Your task to perform on an android device: What is the recent news? Image 0: 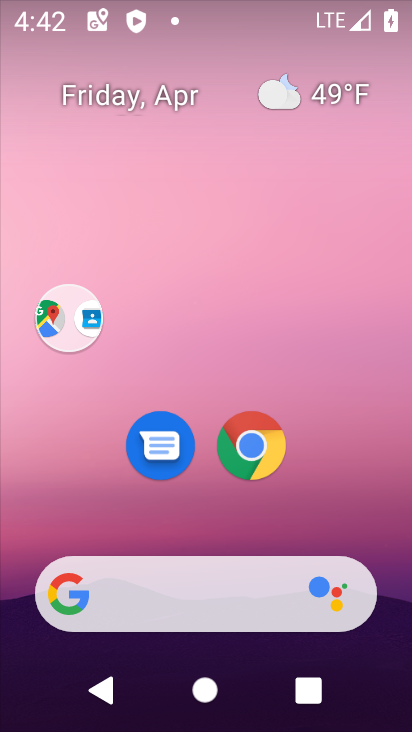
Step 0: drag from (341, 403) to (355, 67)
Your task to perform on an android device: What is the recent news? Image 1: 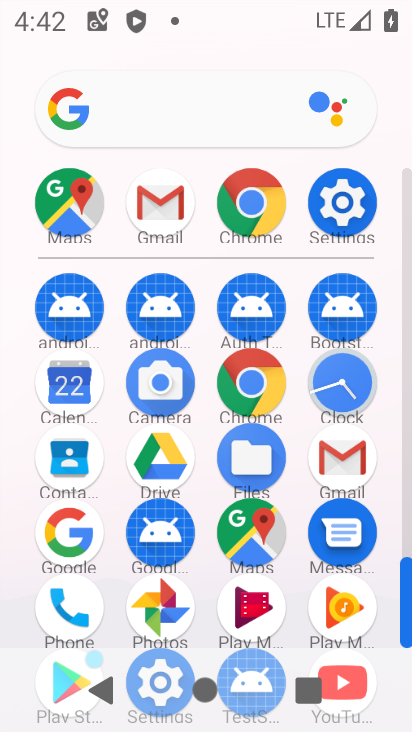
Step 1: click (251, 392)
Your task to perform on an android device: What is the recent news? Image 2: 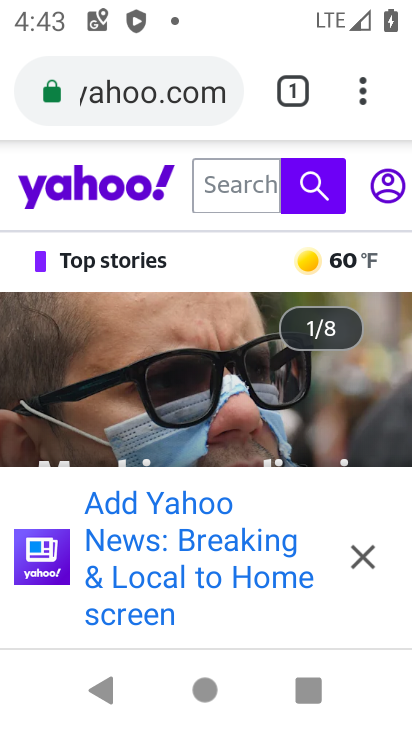
Step 2: click (173, 94)
Your task to perform on an android device: What is the recent news? Image 3: 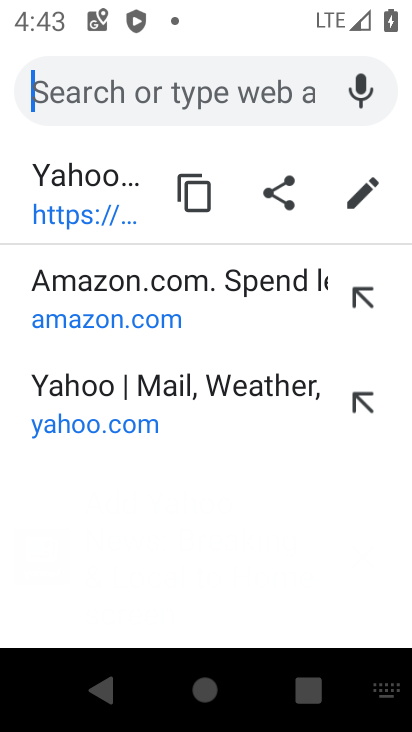
Step 3: type "news"
Your task to perform on an android device: What is the recent news? Image 4: 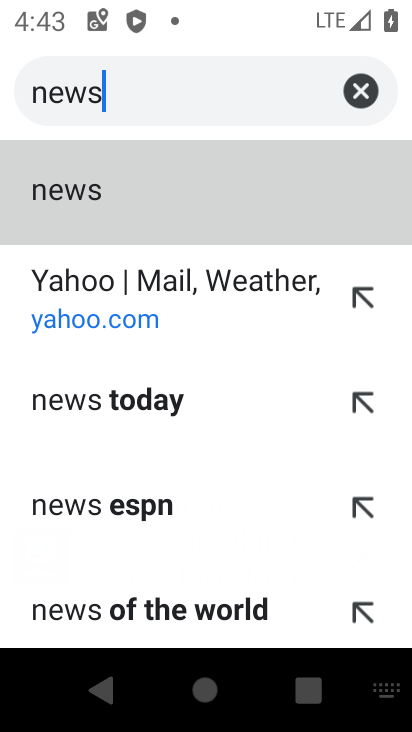
Step 4: click (66, 178)
Your task to perform on an android device: What is the recent news? Image 5: 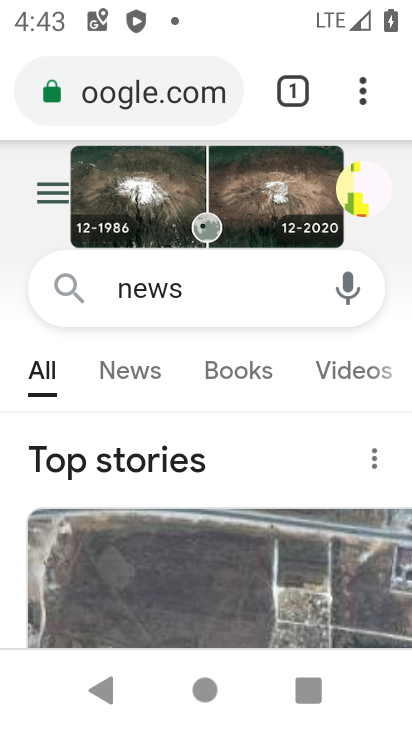
Step 5: drag from (253, 426) to (253, 519)
Your task to perform on an android device: What is the recent news? Image 6: 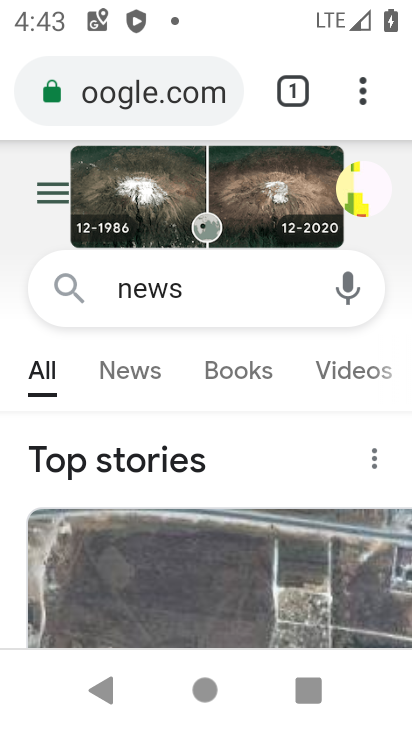
Step 6: click (125, 370)
Your task to perform on an android device: What is the recent news? Image 7: 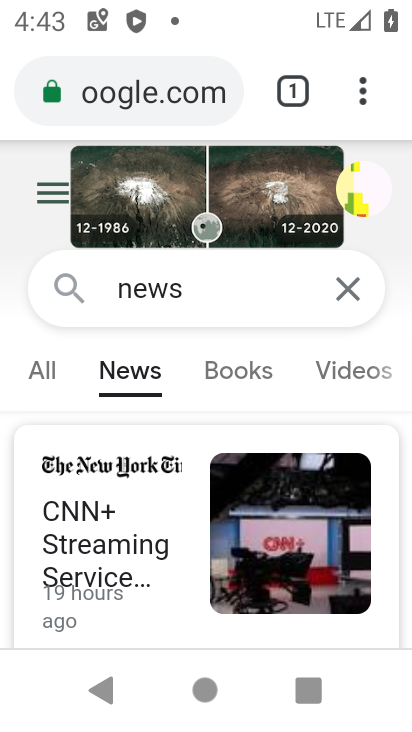
Step 7: task complete